Your task to perform on an android device: move an email to a new category in the gmail app Image 0: 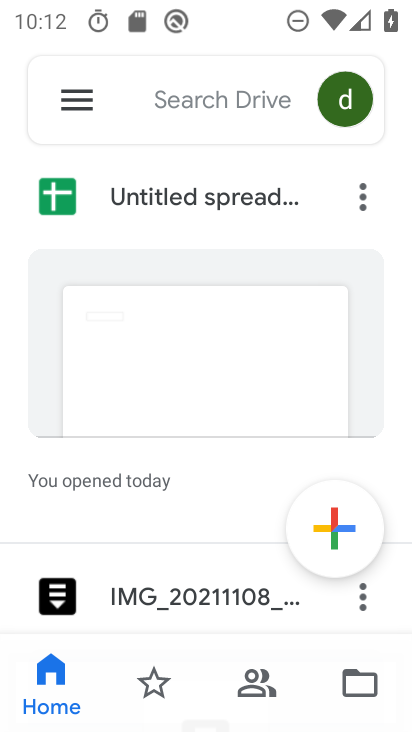
Step 0: press home button
Your task to perform on an android device: move an email to a new category in the gmail app Image 1: 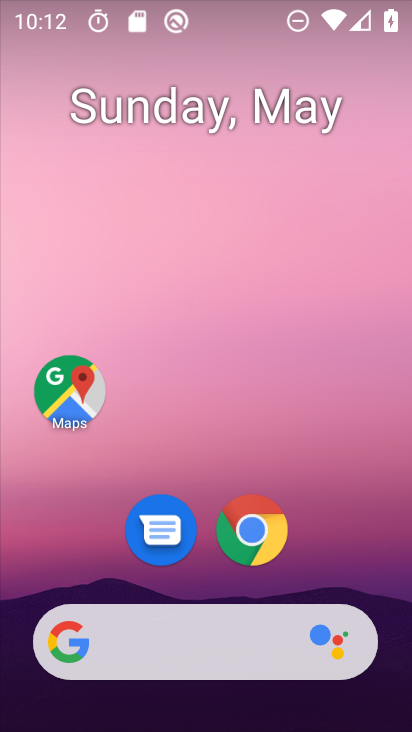
Step 1: drag from (253, 655) to (204, 63)
Your task to perform on an android device: move an email to a new category in the gmail app Image 2: 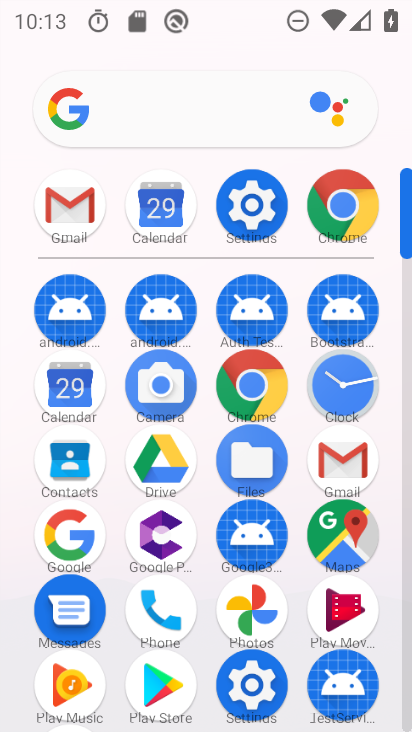
Step 2: click (75, 209)
Your task to perform on an android device: move an email to a new category in the gmail app Image 3: 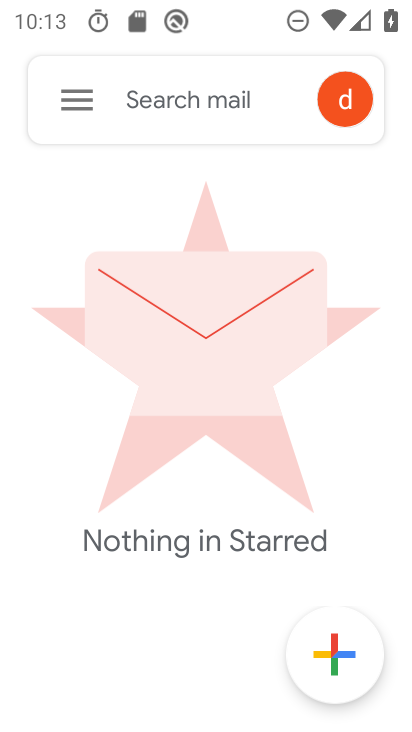
Step 3: click (80, 106)
Your task to perform on an android device: move an email to a new category in the gmail app Image 4: 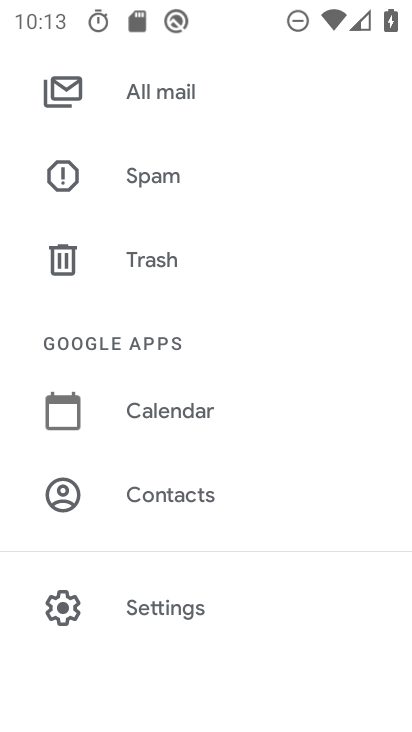
Step 4: click (170, 614)
Your task to perform on an android device: move an email to a new category in the gmail app Image 5: 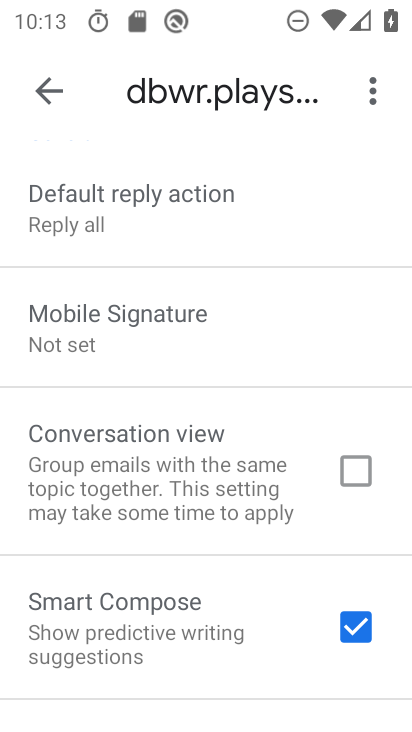
Step 5: click (47, 107)
Your task to perform on an android device: move an email to a new category in the gmail app Image 6: 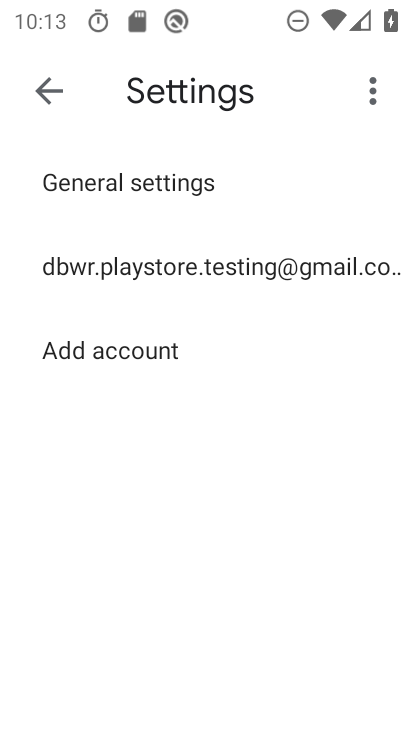
Step 6: click (132, 269)
Your task to perform on an android device: move an email to a new category in the gmail app Image 7: 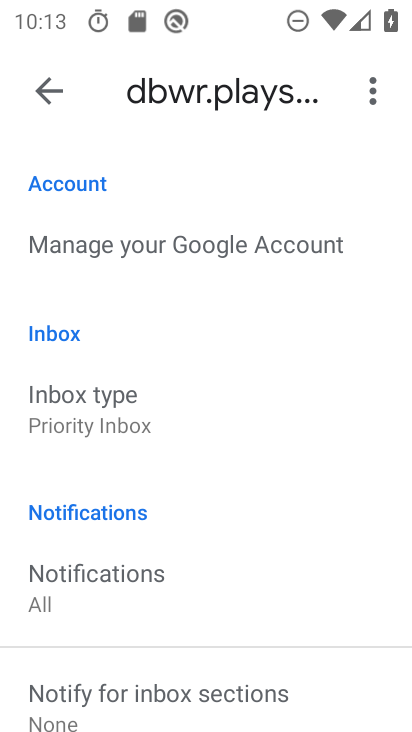
Step 7: click (138, 441)
Your task to perform on an android device: move an email to a new category in the gmail app Image 8: 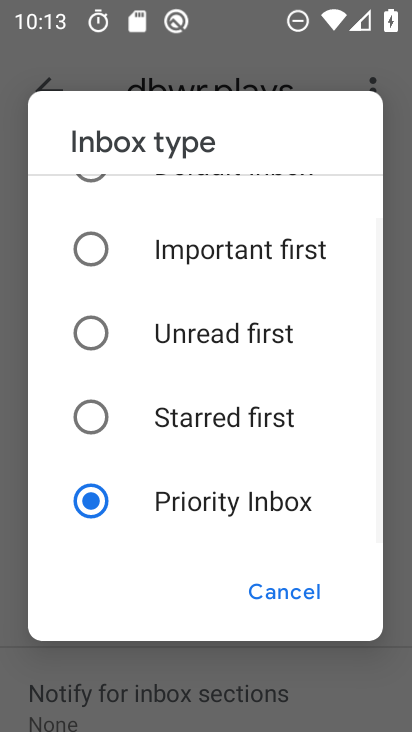
Step 8: click (155, 179)
Your task to perform on an android device: move an email to a new category in the gmail app Image 9: 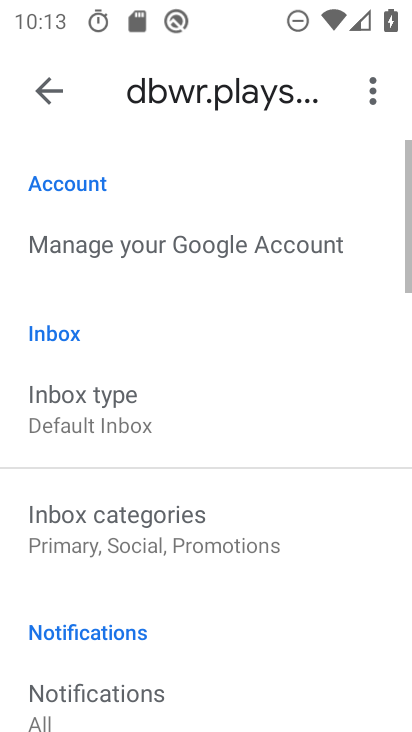
Step 9: click (134, 533)
Your task to perform on an android device: move an email to a new category in the gmail app Image 10: 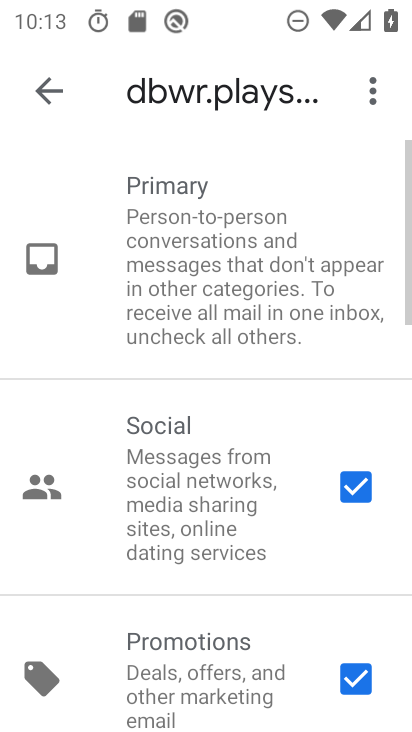
Step 10: task complete